Your task to perform on an android device: see tabs open on other devices in the chrome app Image 0: 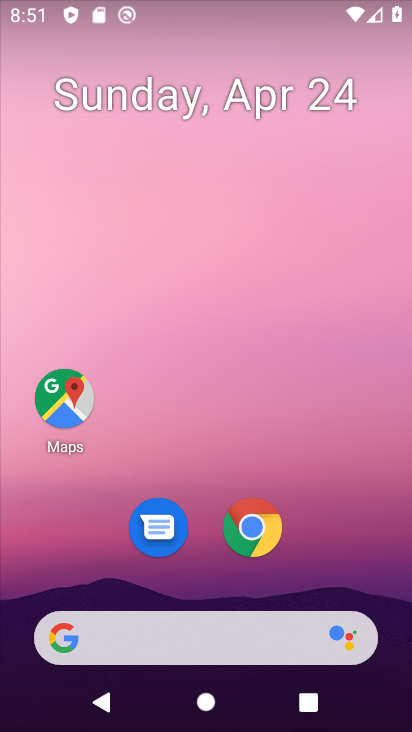
Step 0: click (253, 532)
Your task to perform on an android device: see tabs open on other devices in the chrome app Image 1: 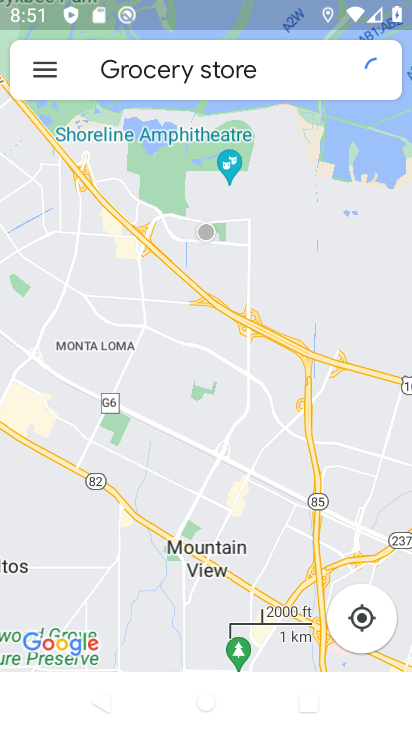
Step 1: press home button
Your task to perform on an android device: see tabs open on other devices in the chrome app Image 2: 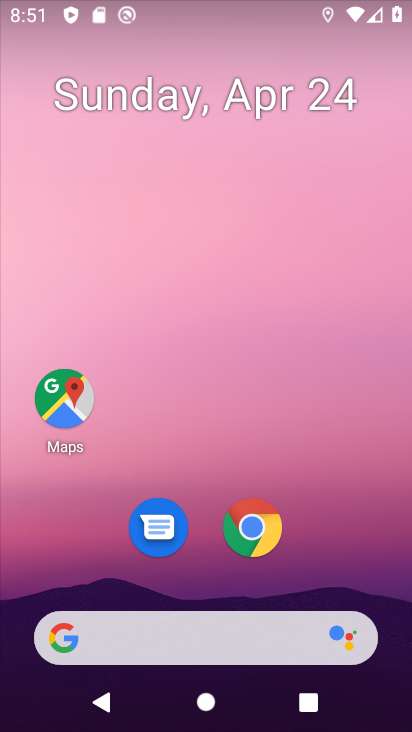
Step 2: click (255, 538)
Your task to perform on an android device: see tabs open on other devices in the chrome app Image 3: 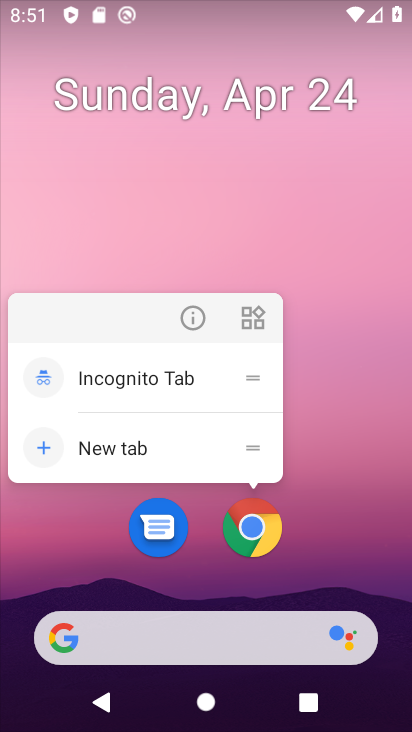
Step 3: click (255, 538)
Your task to perform on an android device: see tabs open on other devices in the chrome app Image 4: 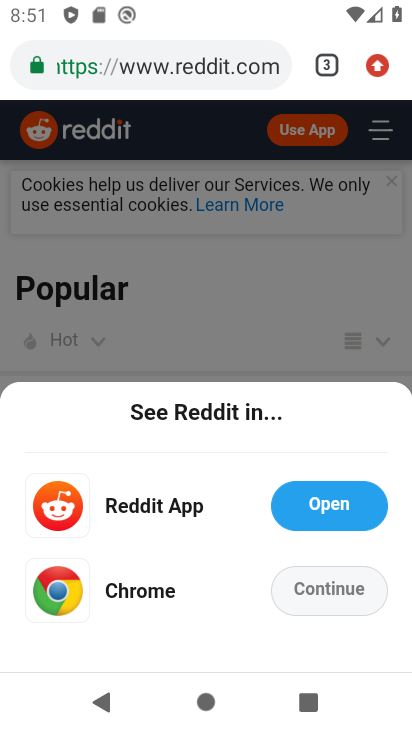
Step 4: click (381, 57)
Your task to perform on an android device: see tabs open on other devices in the chrome app Image 5: 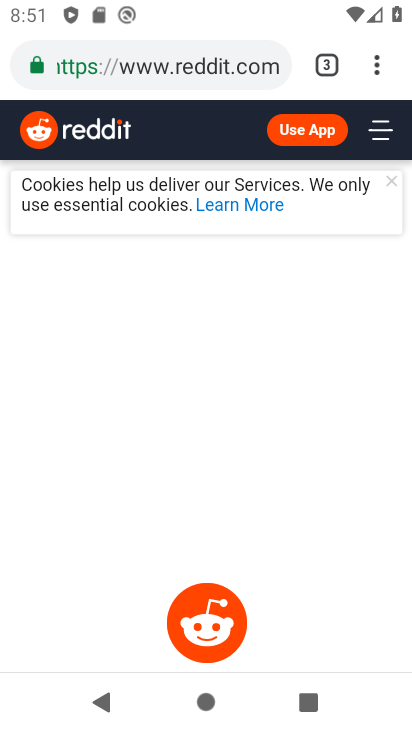
Step 5: click (381, 63)
Your task to perform on an android device: see tabs open on other devices in the chrome app Image 6: 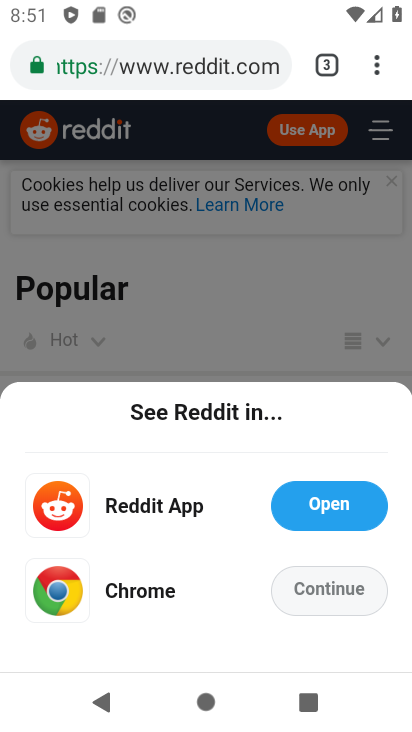
Step 6: click (381, 63)
Your task to perform on an android device: see tabs open on other devices in the chrome app Image 7: 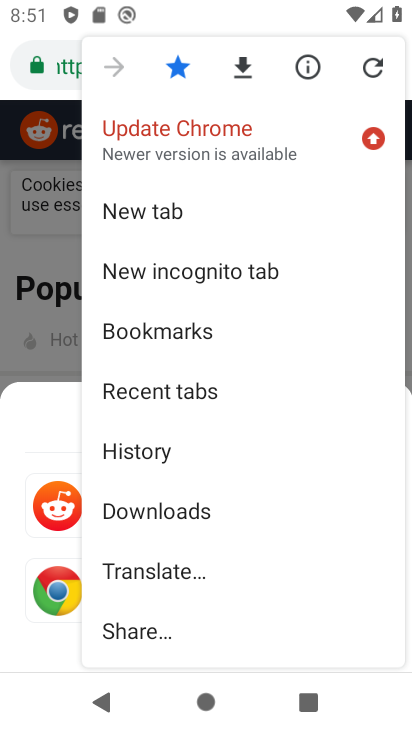
Step 7: click (170, 386)
Your task to perform on an android device: see tabs open on other devices in the chrome app Image 8: 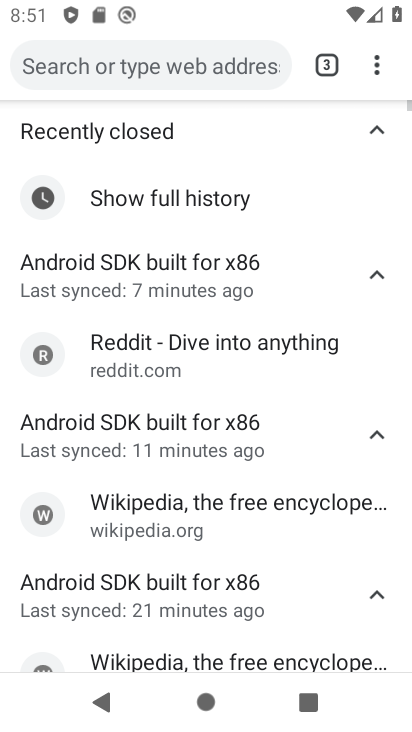
Step 8: task complete